Your task to perform on an android device: turn on notifications settings in the gmail app Image 0: 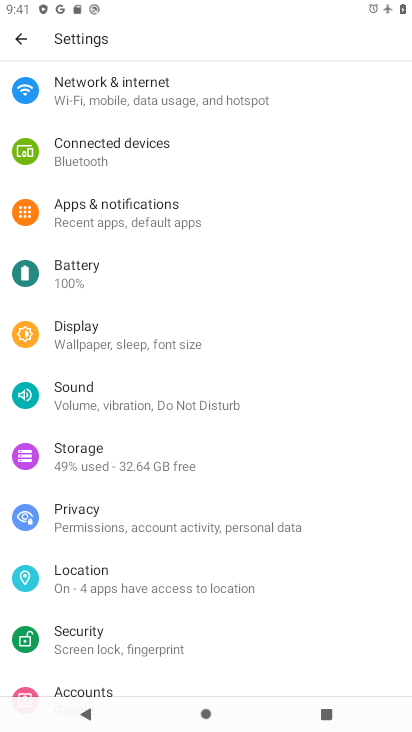
Step 0: press home button
Your task to perform on an android device: turn on notifications settings in the gmail app Image 1: 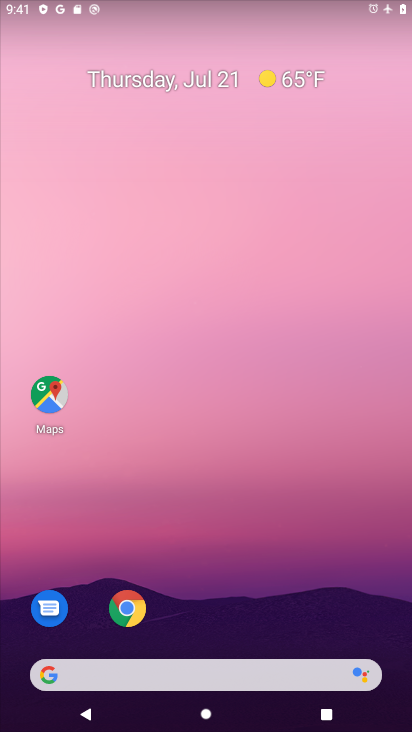
Step 1: drag from (183, 614) to (308, 206)
Your task to perform on an android device: turn on notifications settings in the gmail app Image 2: 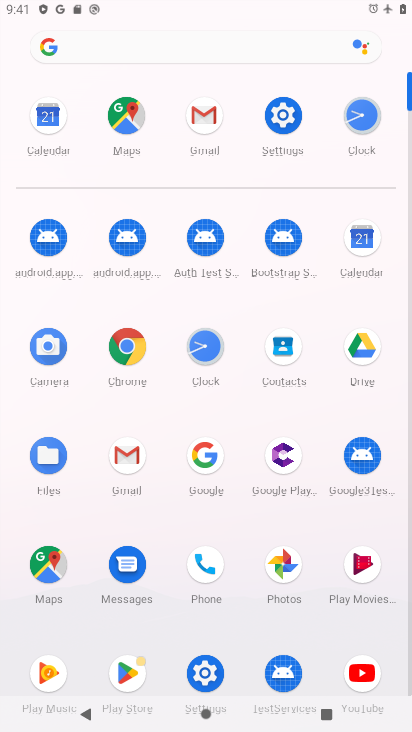
Step 2: click (129, 451)
Your task to perform on an android device: turn on notifications settings in the gmail app Image 3: 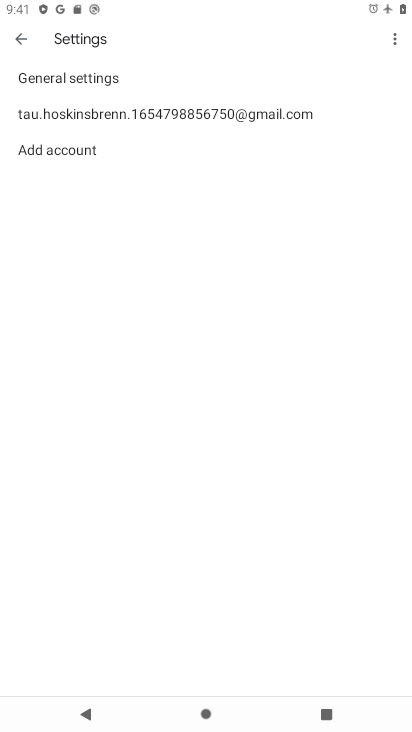
Step 3: click (123, 81)
Your task to perform on an android device: turn on notifications settings in the gmail app Image 4: 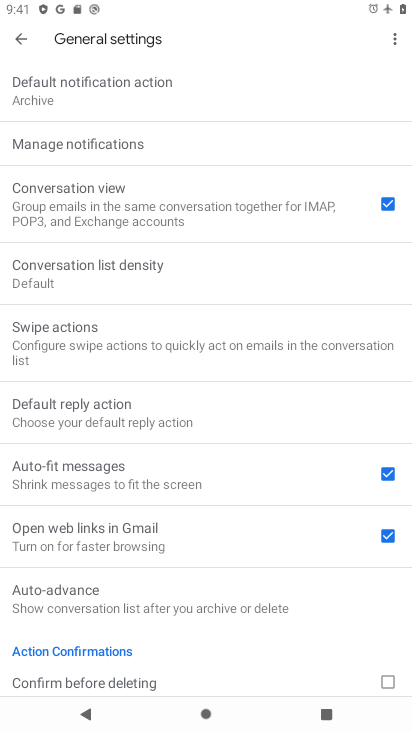
Step 4: task complete